Your task to perform on an android device: Go to display settings Image 0: 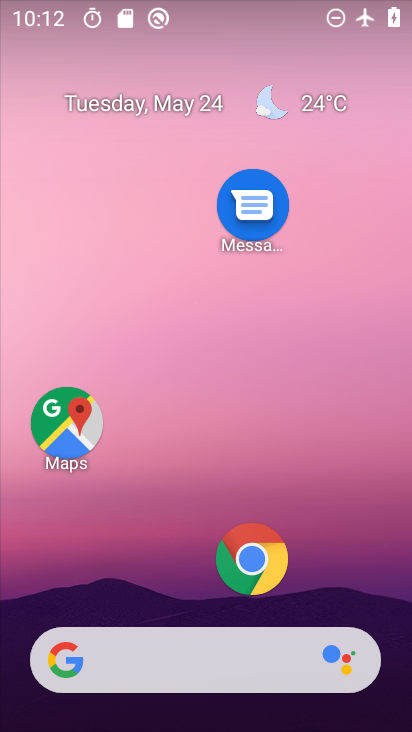
Step 0: drag from (189, 598) to (192, 167)
Your task to perform on an android device: Go to display settings Image 1: 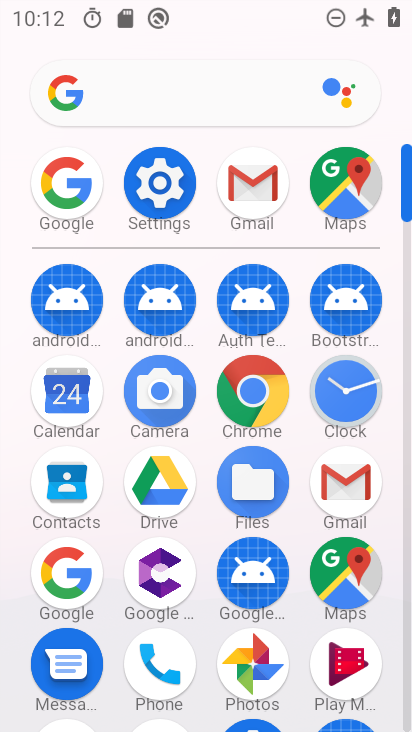
Step 1: click (169, 211)
Your task to perform on an android device: Go to display settings Image 2: 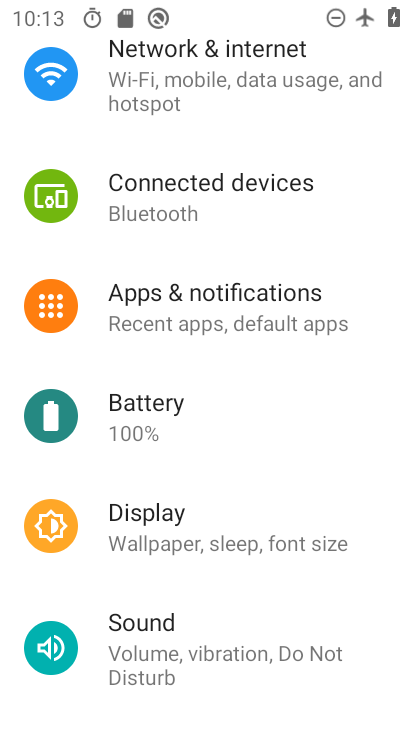
Step 2: click (193, 531)
Your task to perform on an android device: Go to display settings Image 3: 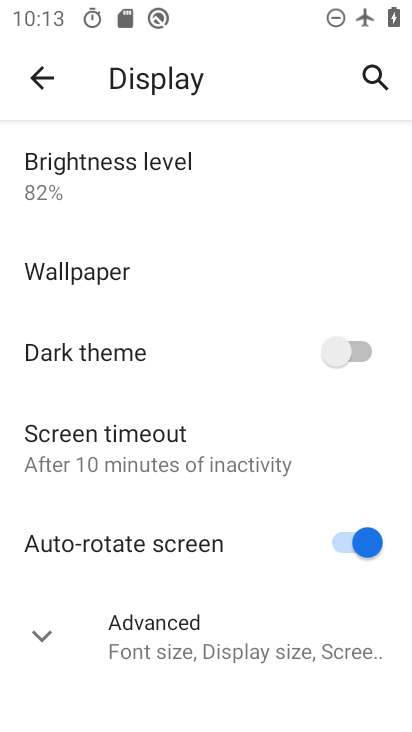
Step 3: drag from (190, 573) to (193, 159)
Your task to perform on an android device: Go to display settings Image 4: 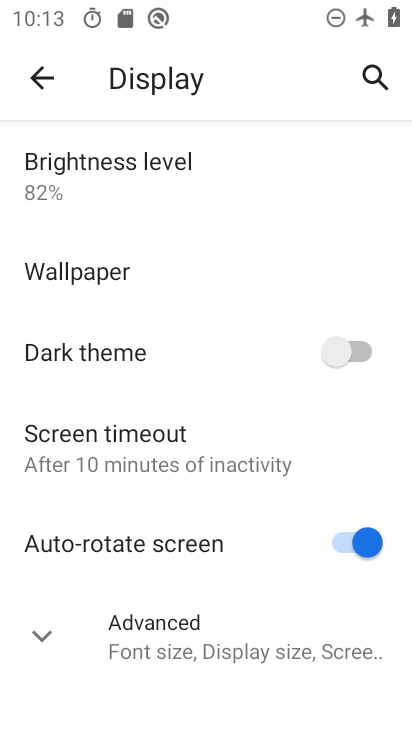
Step 4: drag from (193, 559) to (171, 275)
Your task to perform on an android device: Go to display settings Image 5: 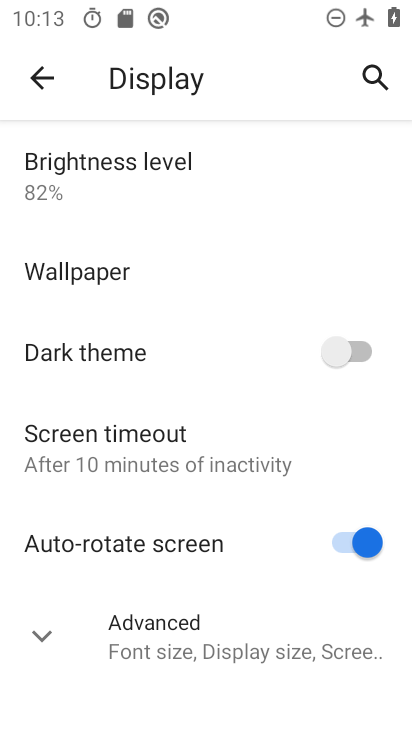
Step 5: click (144, 635)
Your task to perform on an android device: Go to display settings Image 6: 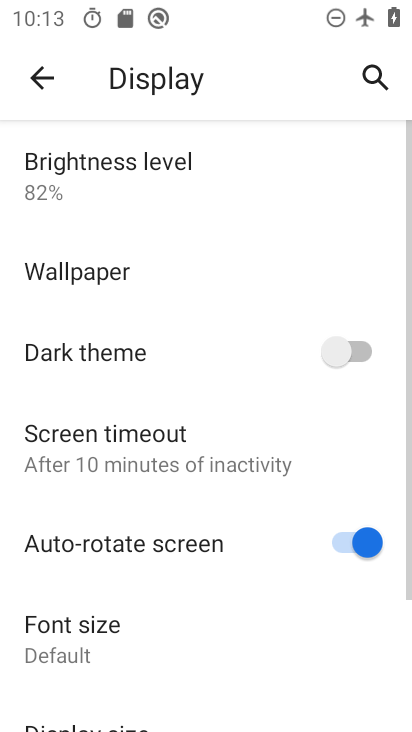
Step 6: task complete